Your task to perform on an android device: turn on the 24-hour format for clock Image 0: 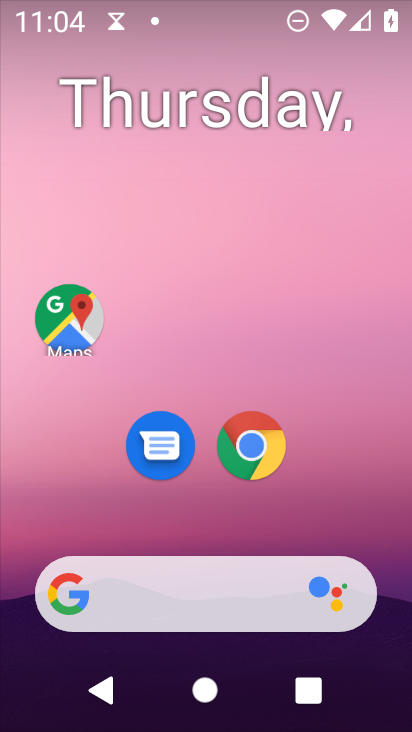
Step 0: drag from (255, 718) to (256, 32)
Your task to perform on an android device: turn on the 24-hour format for clock Image 1: 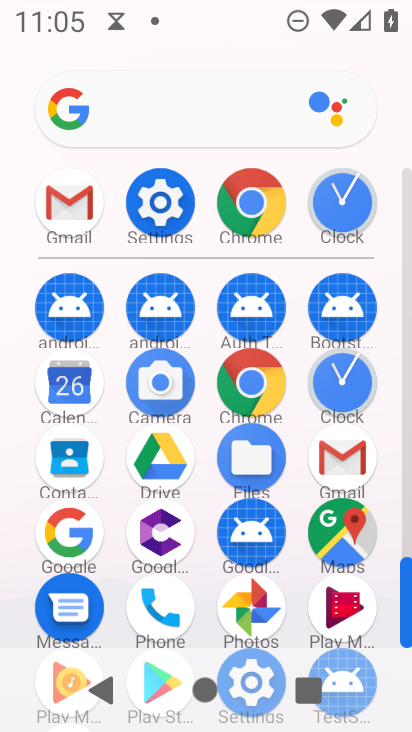
Step 1: click (343, 376)
Your task to perform on an android device: turn on the 24-hour format for clock Image 2: 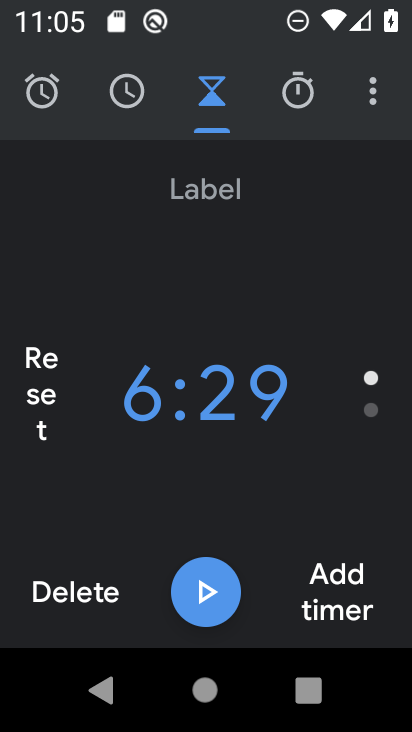
Step 2: click (374, 105)
Your task to perform on an android device: turn on the 24-hour format for clock Image 3: 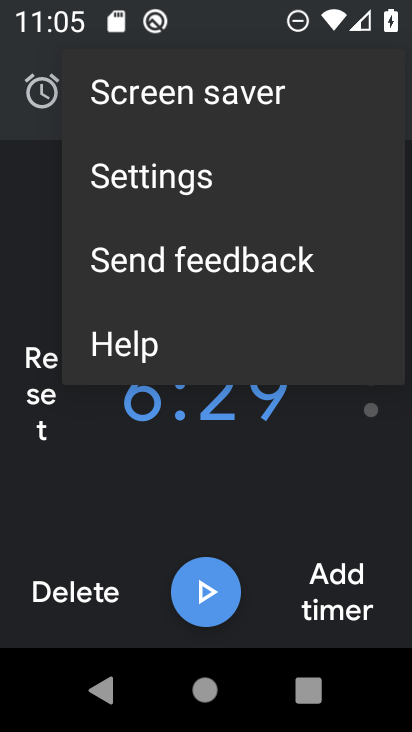
Step 3: click (150, 178)
Your task to perform on an android device: turn on the 24-hour format for clock Image 4: 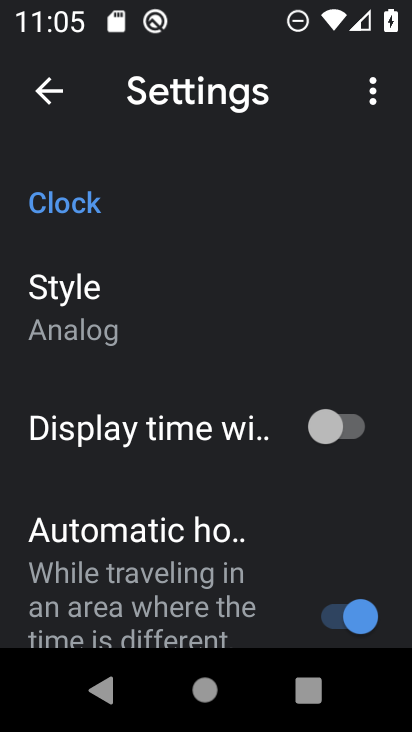
Step 4: drag from (108, 605) to (133, 184)
Your task to perform on an android device: turn on the 24-hour format for clock Image 5: 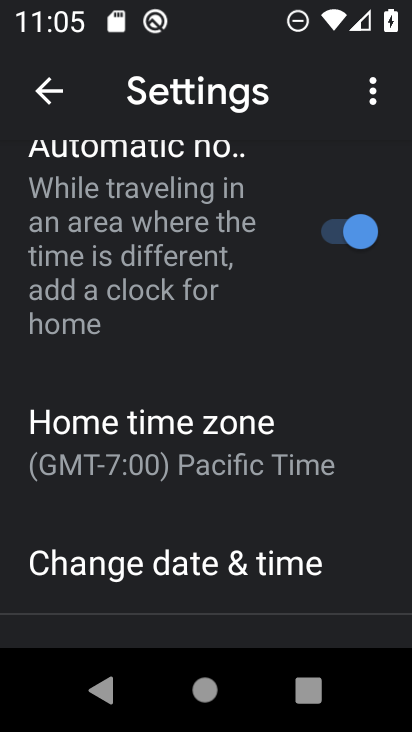
Step 5: drag from (129, 605) to (154, 190)
Your task to perform on an android device: turn on the 24-hour format for clock Image 6: 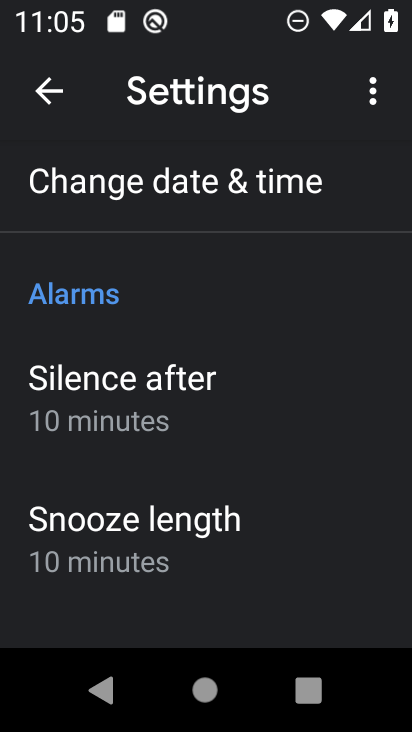
Step 6: click (213, 185)
Your task to perform on an android device: turn on the 24-hour format for clock Image 7: 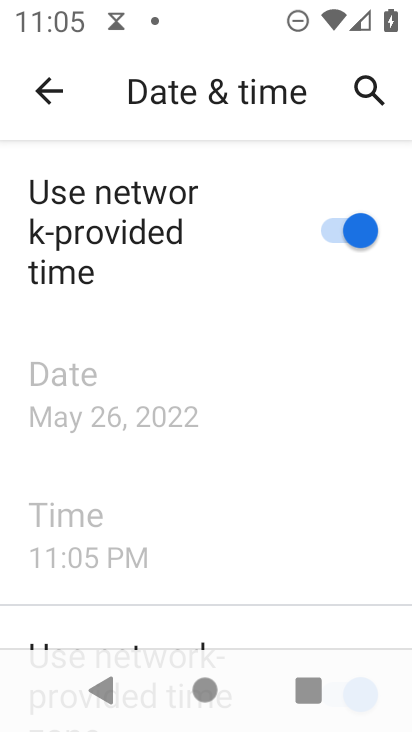
Step 7: drag from (157, 633) to (192, 197)
Your task to perform on an android device: turn on the 24-hour format for clock Image 8: 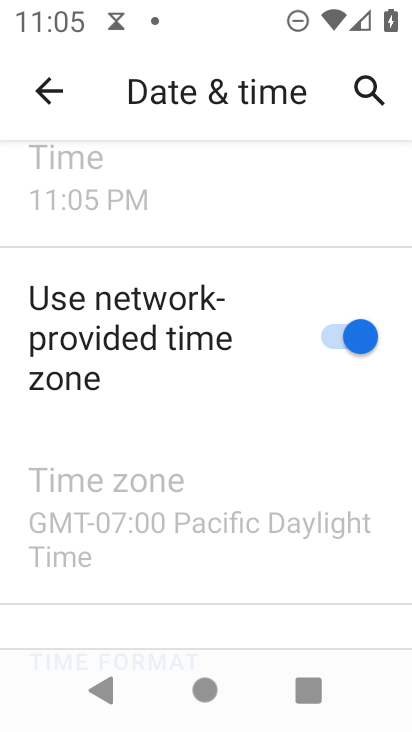
Step 8: drag from (209, 625) to (213, 170)
Your task to perform on an android device: turn on the 24-hour format for clock Image 9: 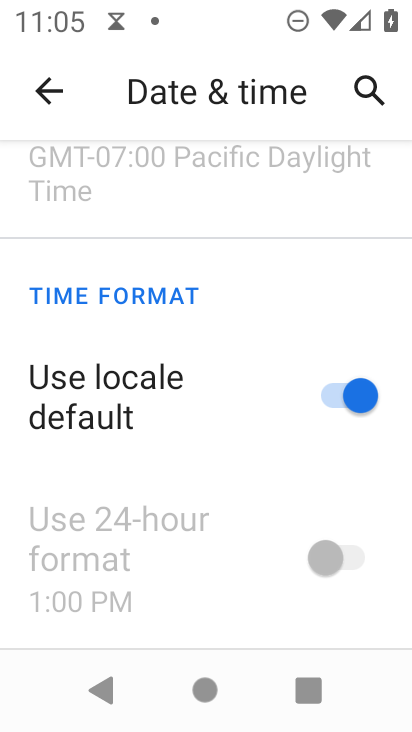
Step 9: click (325, 395)
Your task to perform on an android device: turn on the 24-hour format for clock Image 10: 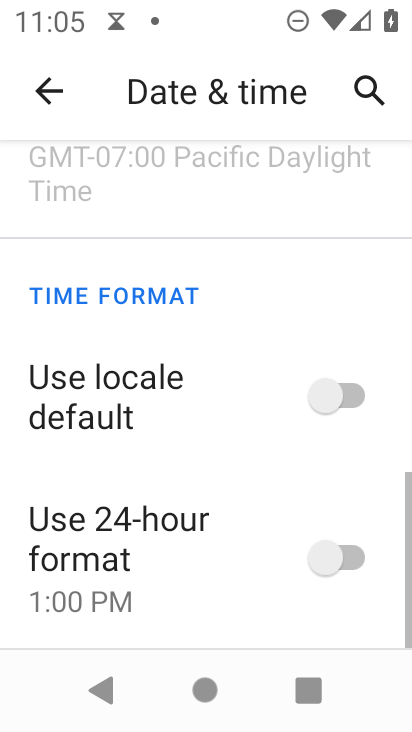
Step 10: click (357, 559)
Your task to perform on an android device: turn on the 24-hour format for clock Image 11: 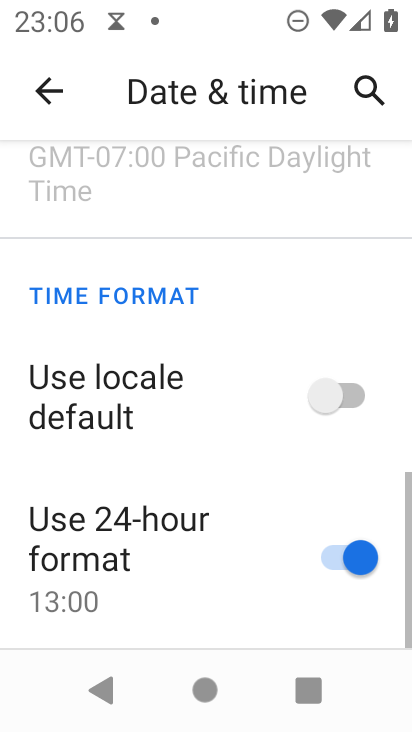
Step 11: task complete